Your task to perform on an android device: Go to settings Image 0: 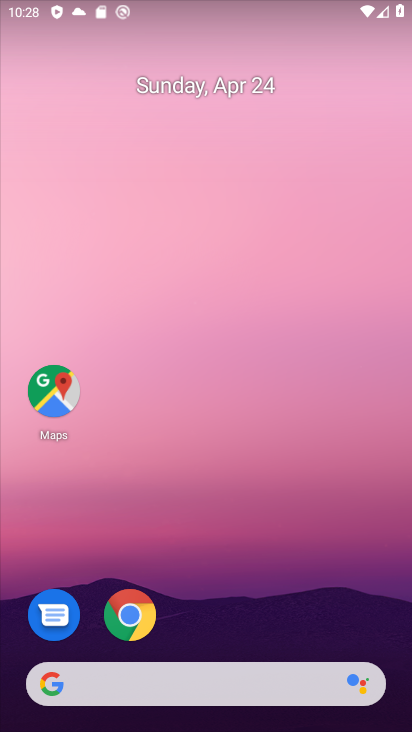
Step 0: drag from (222, 645) to (223, 8)
Your task to perform on an android device: Go to settings Image 1: 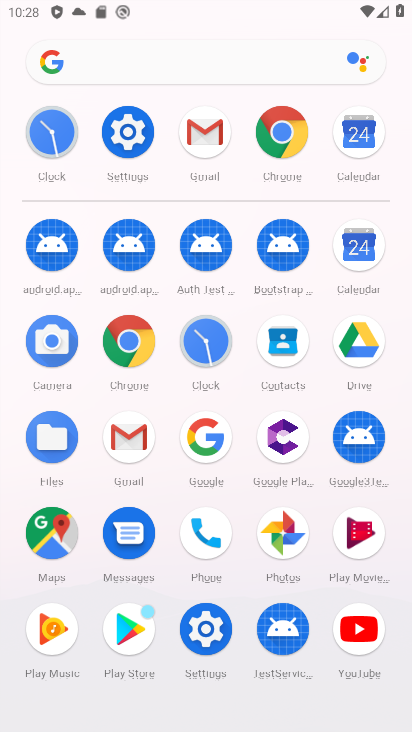
Step 1: click (201, 620)
Your task to perform on an android device: Go to settings Image 2: 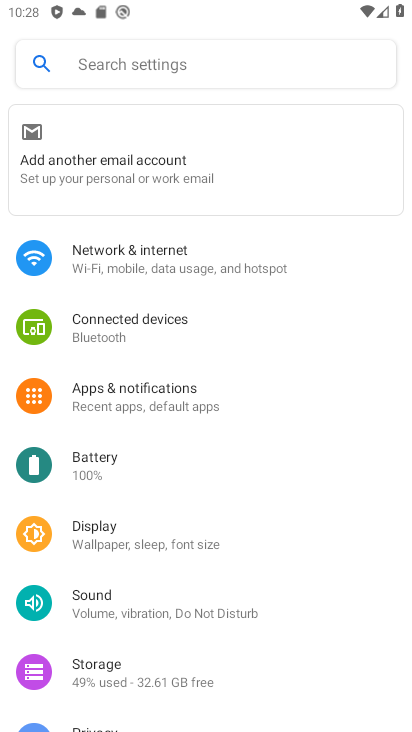
Step 2: click (194, 249)
Your task to perform on an android device: Go to settings Image 3: 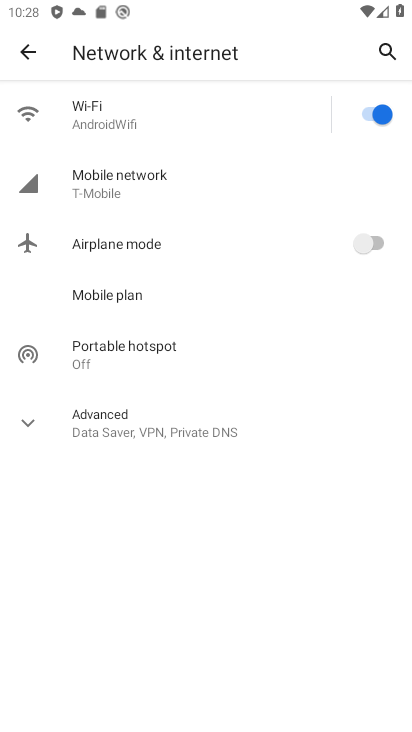
Step 3: click (29, 415)
Your task to perform on an android device: Go to settings Image 4: 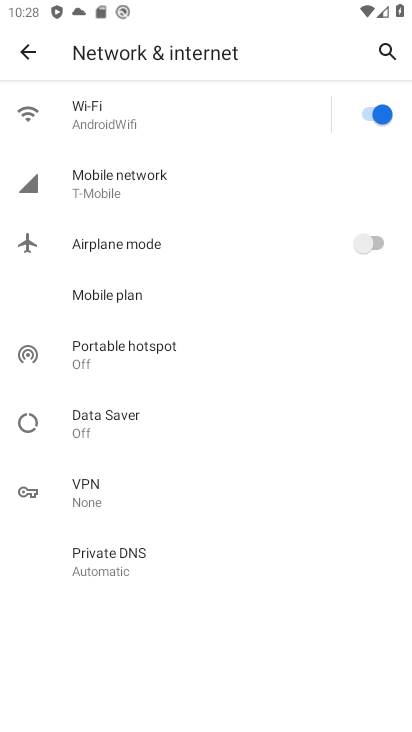
Step 4: click (34, 60)
Your task to perform on an android device: Go to settings Image 5: 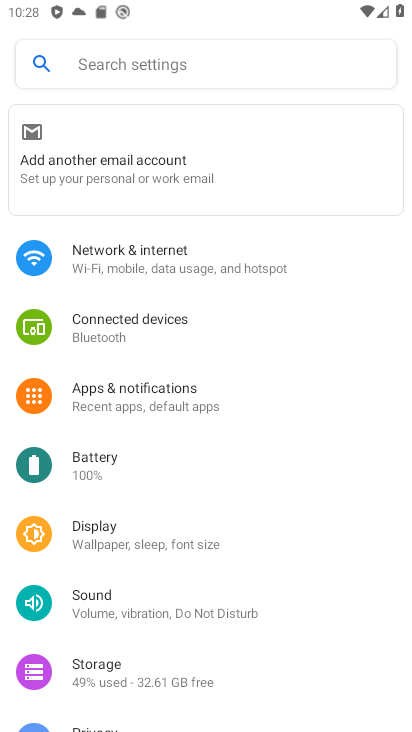
Step 5: task complete